Your task to perform on an android device: change your default location settings in chrome Image 0: 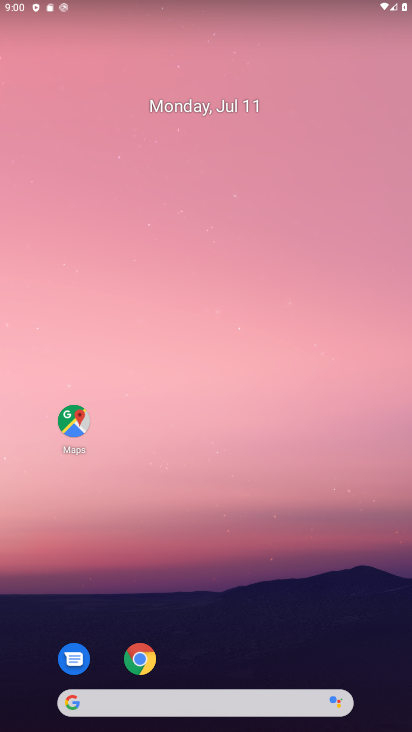
Step 0: drag from (220, 722) to (227, 132)
Your task to perform on an android device: change your default location settings in chrome Image 1: 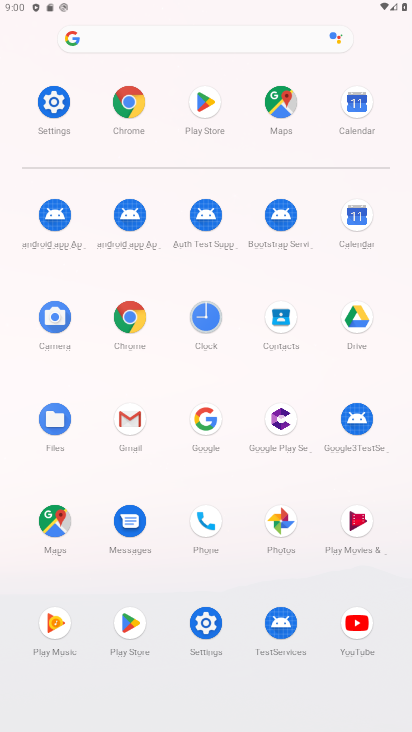
Step 1: click (133, 319)
Your task to perform on an android device: change your default location settings in chrome Image 2: 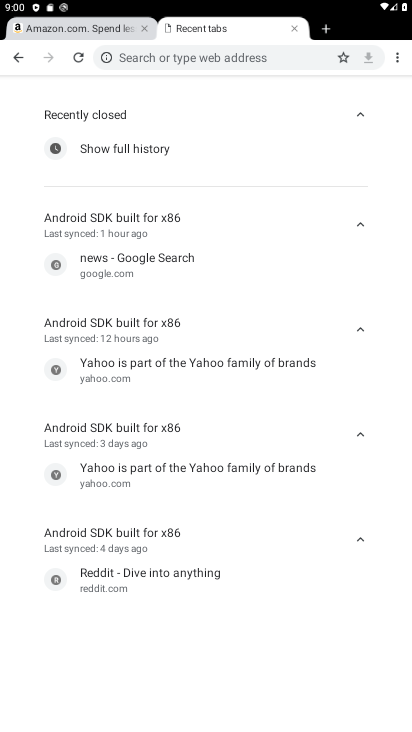
Step 2: click (397, 61)
Your task to perform on an android device: change your default location settings in chrome Image 3: 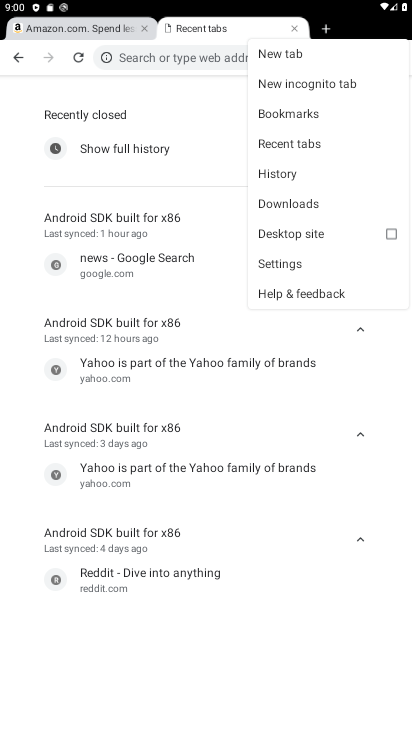
Step 3: click (278, 264)
Your task to perform on an android device: change your default location settings in chrome Image 4: 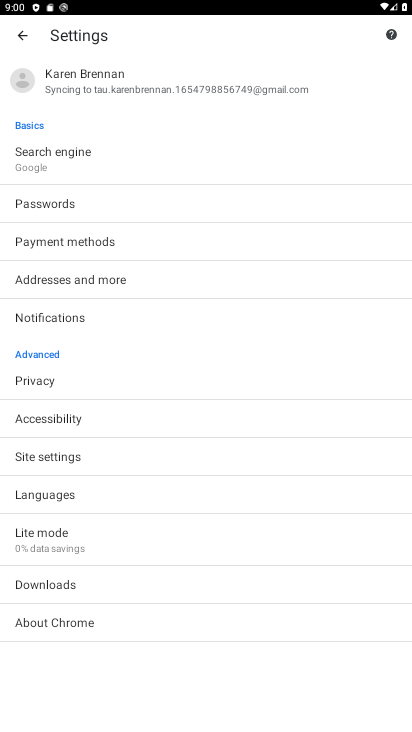
Step 4: click (76, 452)
Your task to perform on an android device: change your default location settings in chrome Image 5: 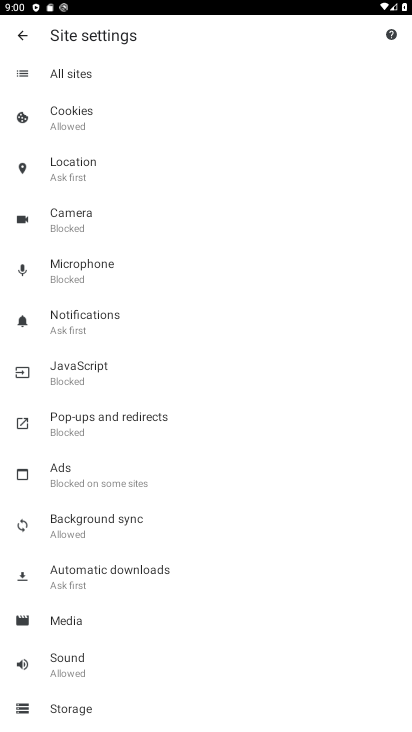
Step 5: click (69, 169)
Your task to perform on an android device: change your default location settings in chrome Image 6: 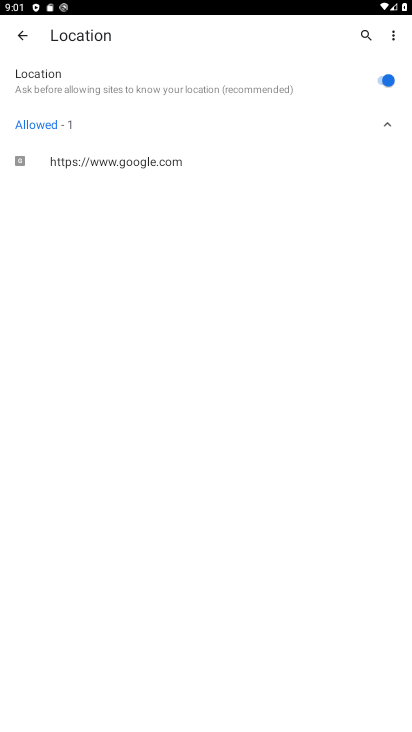
Step 6: click (385, 80)
Your task to perform on an android device: change your default location settings in chrome Image 7: 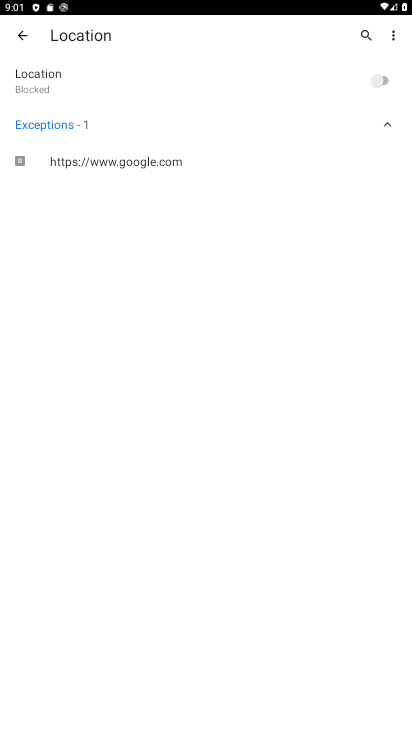
Step 7: task complete